Your task to perform on an android device: What's the price of the Galaxy phone on eBay? Image 0: 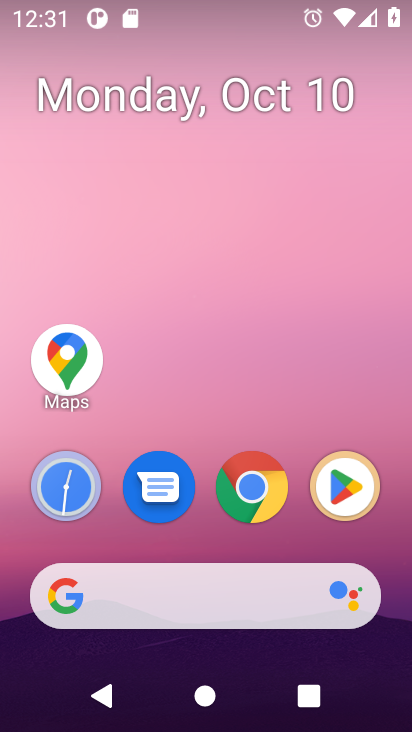
Step 0: drag from (209, 557) to (164, 58)
Your task to perform on an android device: What's the price of the Galaxy phone on eBay? Image 1: 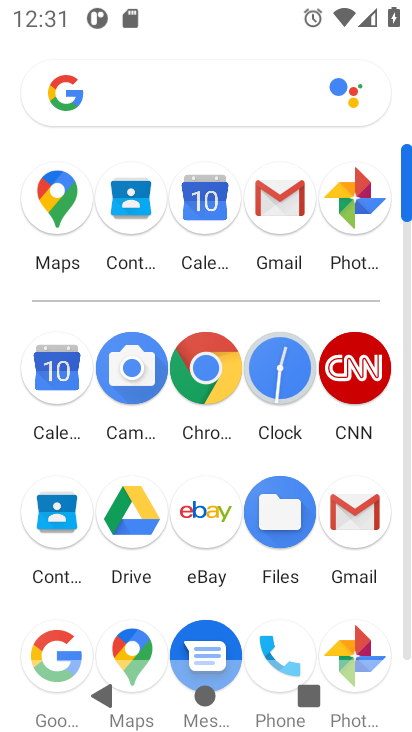
Step 1: click (208, 367)
Your task to perform on an android device: What's the price of the Galaxy phone on eBay? Image 2: 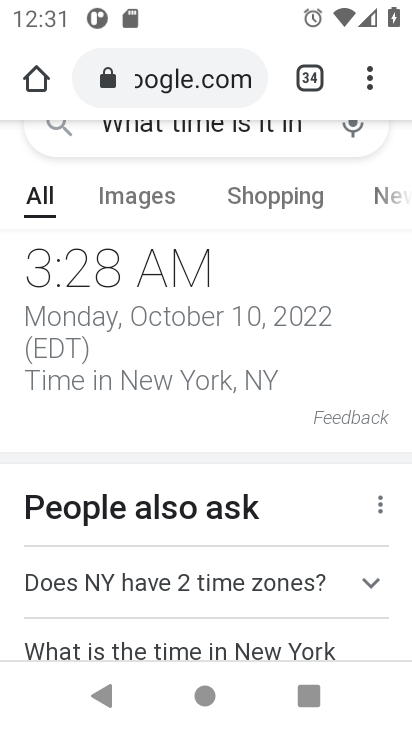
Step 2: drag from (174, 169) to (181, 456)
Your task to perform on an android device: What's the price of the Galaxy phone on eBay? Image 3: 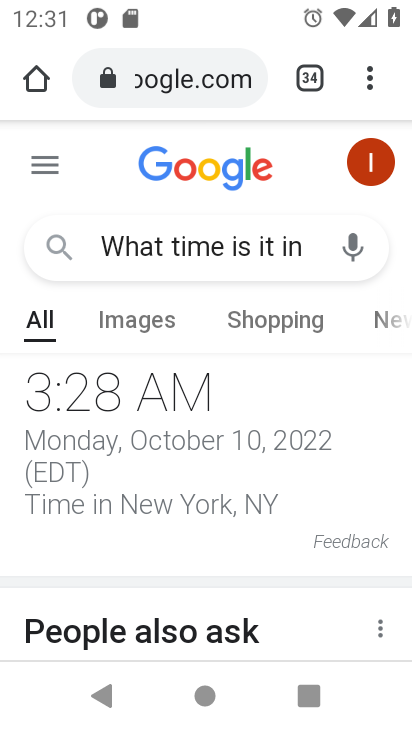
Step 3: click (274, 256)
Your task to perform on an android device: What's the price of the Galaxy phone on eBay? Image 4: 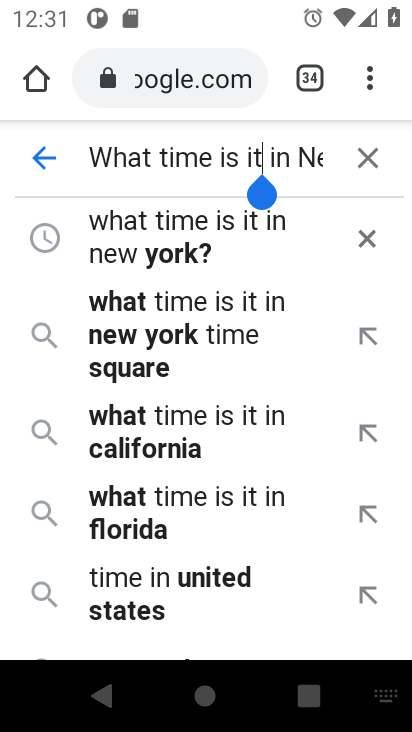
Step 4: click (359, 152)
Your task to perform on an android device: What's the price of the Galaxy phone on eBay? Image 5: 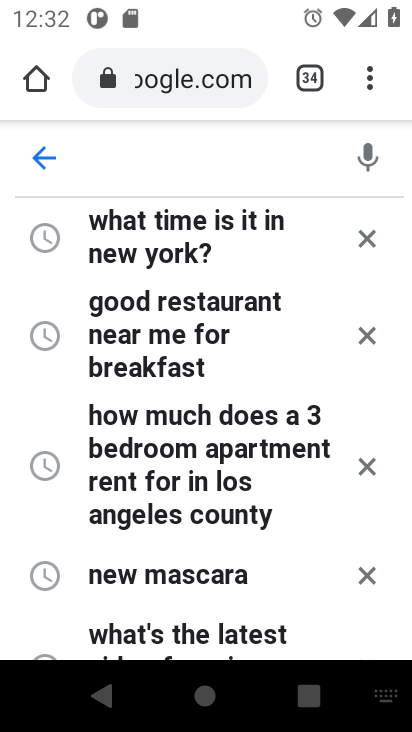
Step 5: type "What's the price of the Galaxy phone on eBay?"
Your task to perform on an android device: What's the price of the Galaxy phone on eBay? Image 6: 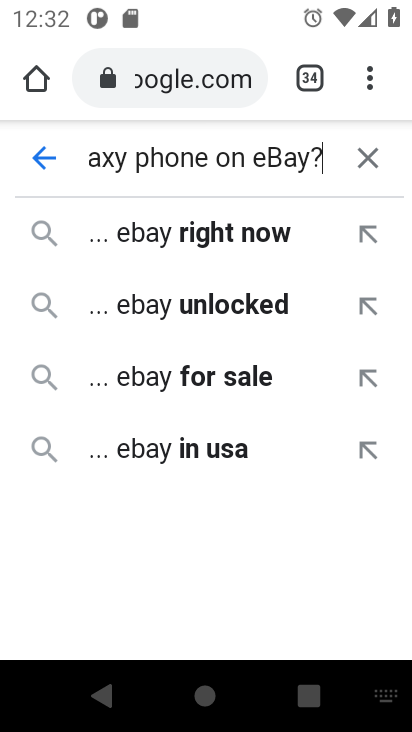
Step 6: type ""
Your task to perform on an android device: What's the price of the Galaxy phone on eBay? Image 7: 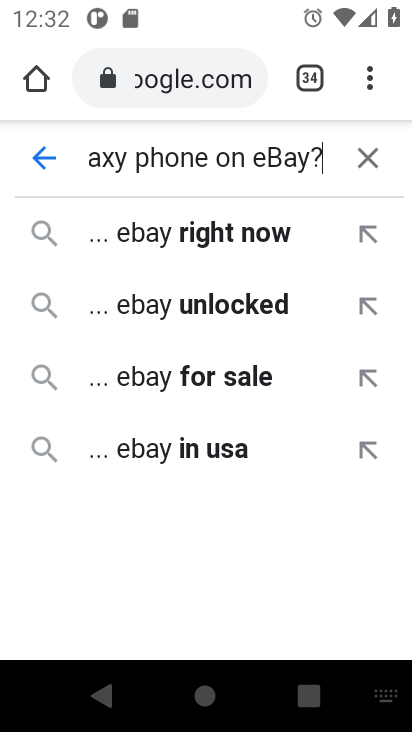
Step 7: click (153, 151)
Your task to perform on an android device: What's the price of the Galaxy phone on eBay? Image 8: 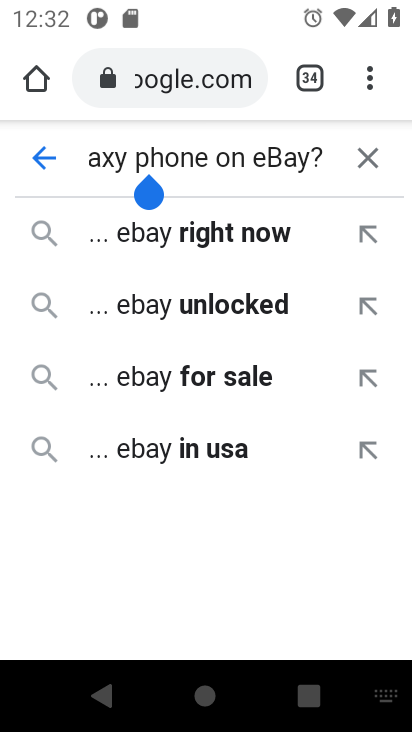
Step 8: click (223, 222)
Your task to perform on an android device: What's the price of the Galaxy phone on eBay? Image 9: 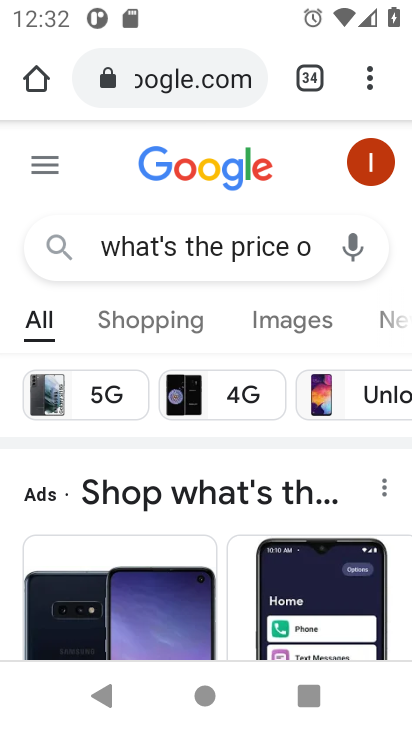
Step 9: task complete